Your task to perform on an android device: show emergency info Image 0: 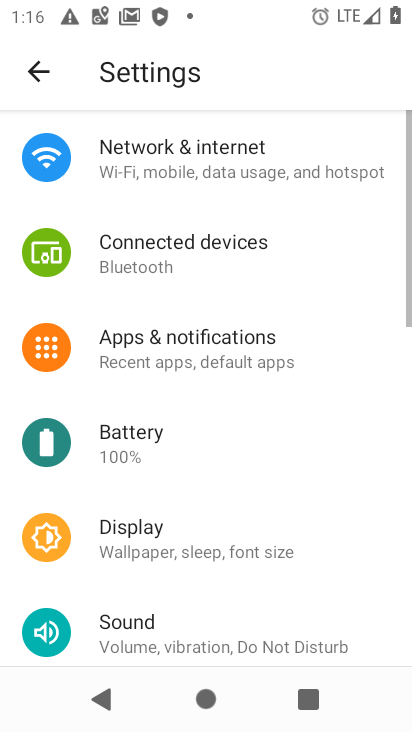
Step 0: drag from (183, 501) to (176, 26)
Your task to perform on an android device: show emergency info Image 1: 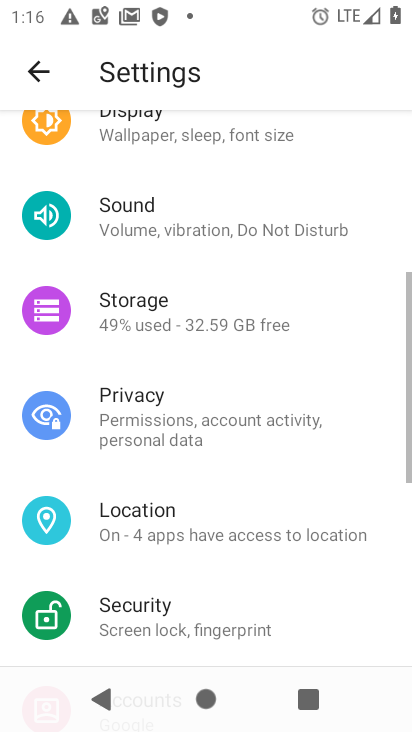
Step 1: drag from (153, 491) to (160, 13)
Your task to perform on an android device: show emergency info Image 2: 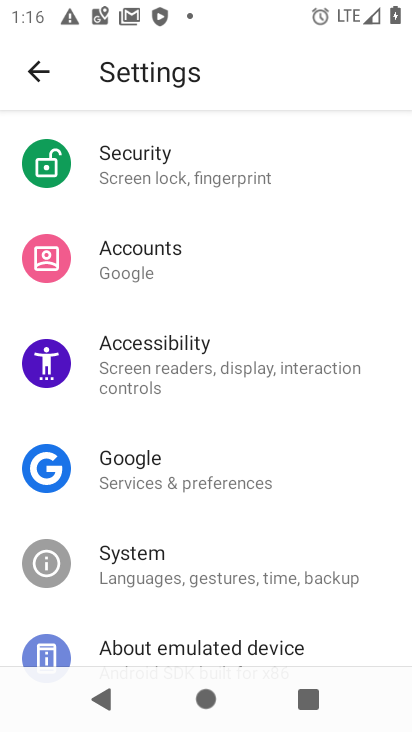
Step 2: click (203, 638)
Your task to perform on an android device: show emergency info Image 3: 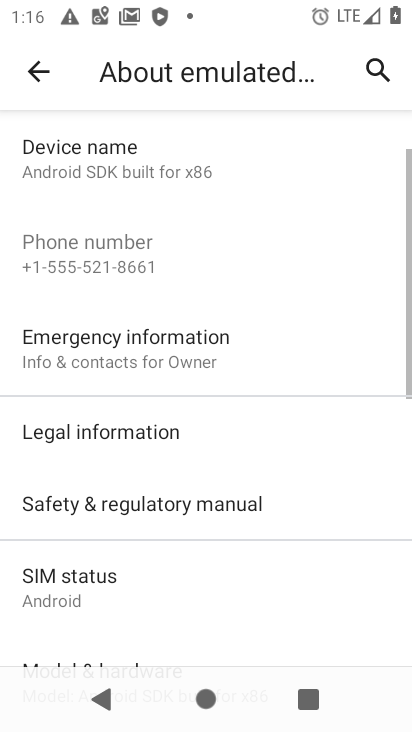
Step 3: click (163, 344)
Your task to perform on an android device: show emergency info Image 4: 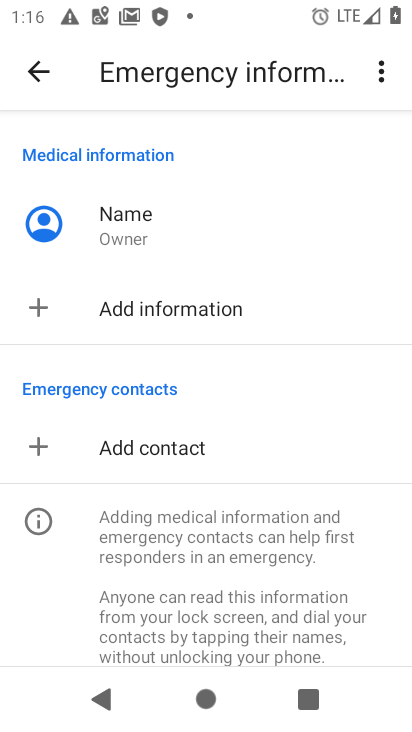
Step 4: task complete